Your task to perform on an android device: check the backup settings in the google photos Image 0: 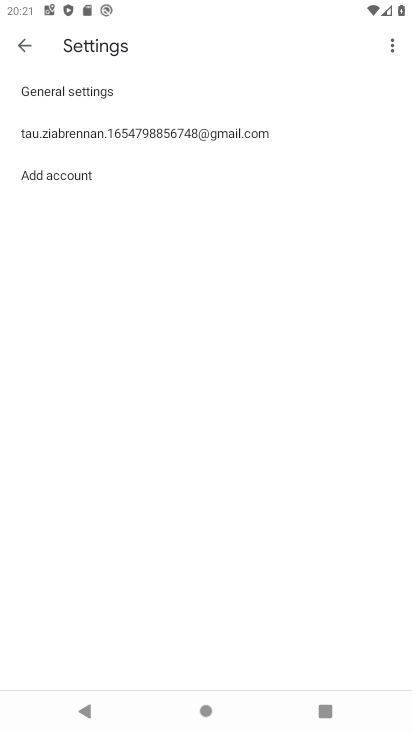
Step 0: drag from (169, 555) to (233, 178)
Your task to perform on an android device: check the backup settings in the google photos Image 1: 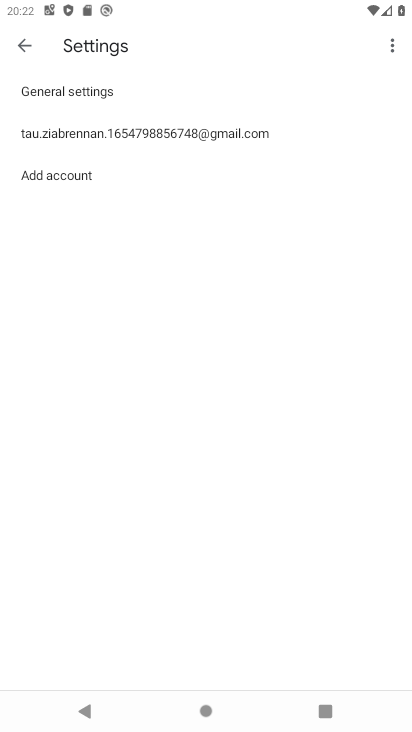
Step 1: press home button
Your task to perform on an android device: check the backup settings in the google photos Image 2: 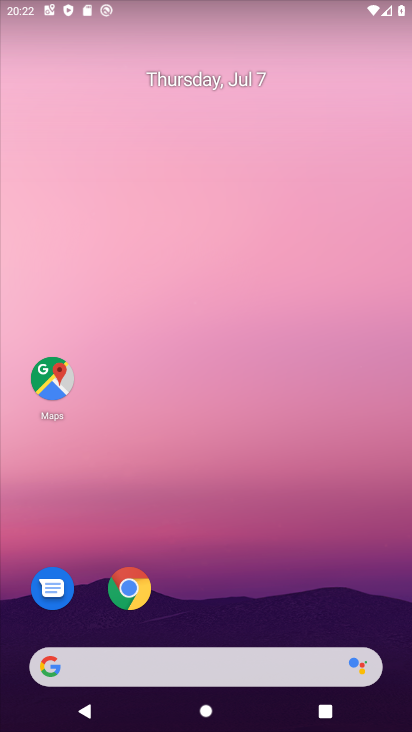
Step 2: drag from (213, 522) to (241, 227)
Your task to perform on an android device: check the backup settings in the google photos Image 3: 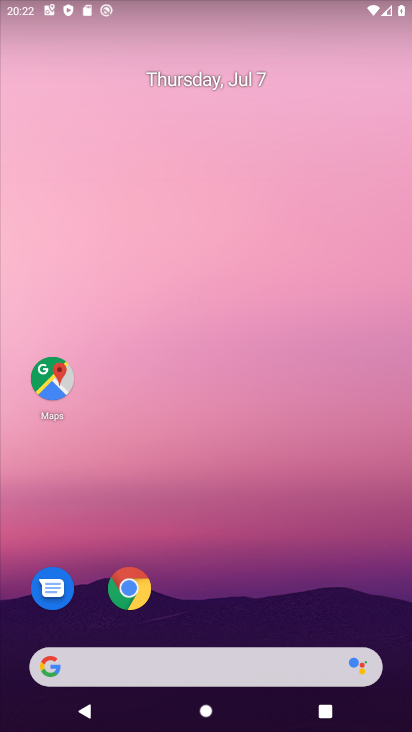
Step 3: drag from (265, 457) to (265, 110)
Your task to perform on an android device: check the backup settings in the google photos Image 4: 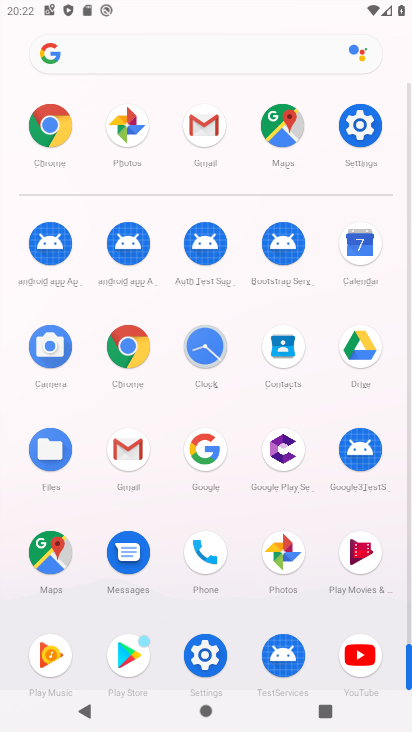
Step 4: drag from (265, 499) to (255, 179)
Your task to perform on an android device: check the backup settings in the google photos Image 5: 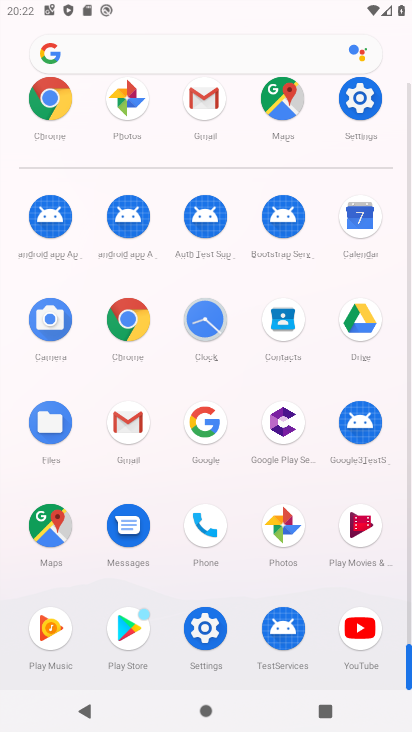
Step 5: click (279, 518)
Your task to perform on an android device: check the backup settings in the google photos Image 6: 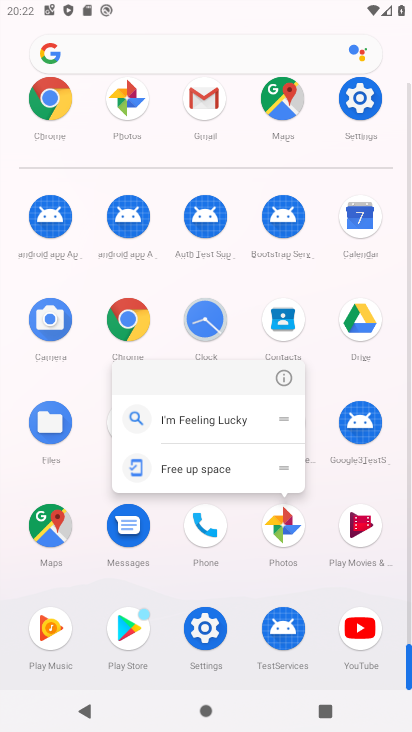
Step 6: click (285, 380)
Your task to perform on an android device: check the backup settings in the google photos Image 7: 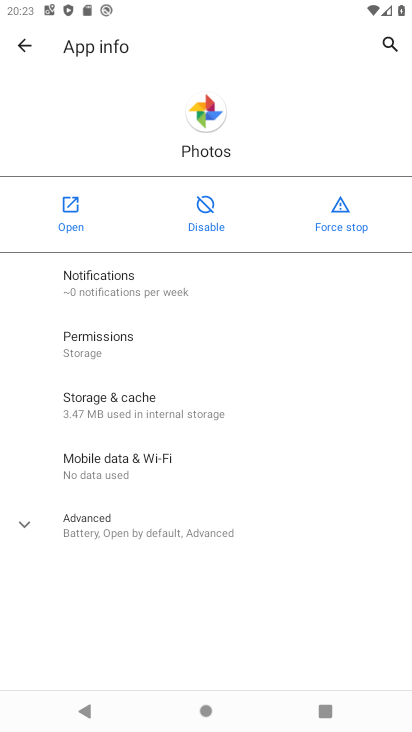
Step 7: click (66, 215)
Your task to perform on an android device: check the backup settings in the google photos Image 8: 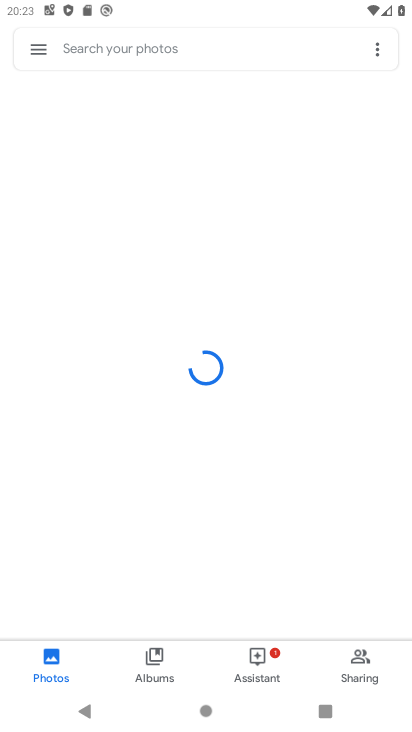
Step 8: drag from (233, 601) to (229, 290)
Your task to perform on an android device: check the backup settings in the google photos Image 9: 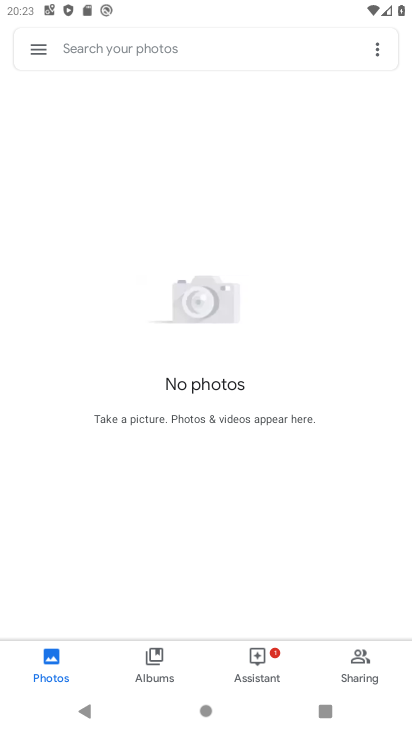
Step 9: click (43, 42)
Your task to perform on an android device: check the backup settings in the google photos Image 10: 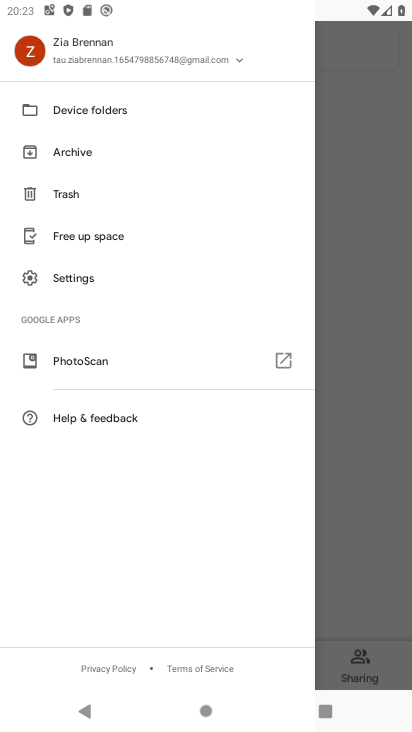
Step 10: click (68, 268)
Your task to perform on an android device: check the backup settings in the google photos Image 11: 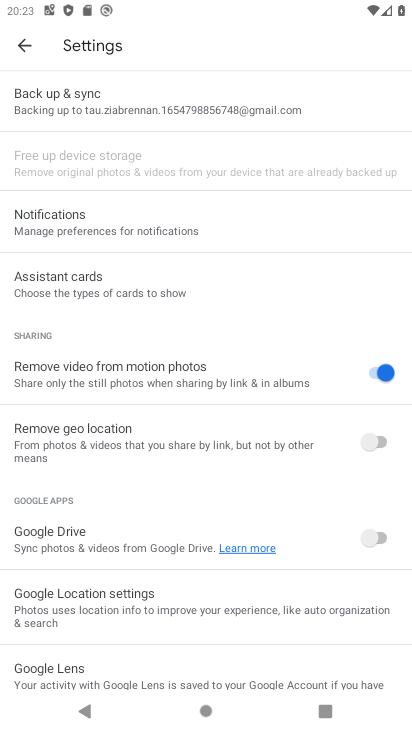
Step 11: drag from (192, 408) to (219, 166)
Your task to perform on an android device: check the backup settings in the google photos Image 12: 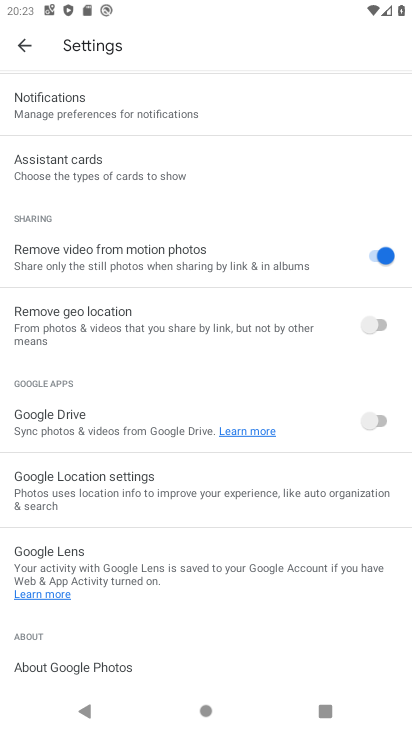
Step 12: drag from (116, 555) to (158, 182)
Your task to perform on an android device: check the backup settings in the google photos Image 13: 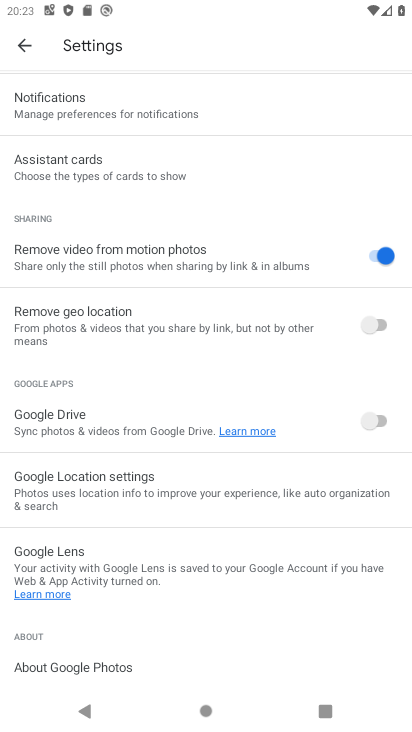
Step 13: drag from (210, 160) to (260, 518)
Your task to perform on an android device: check the backup settings in the google photos Image 14: 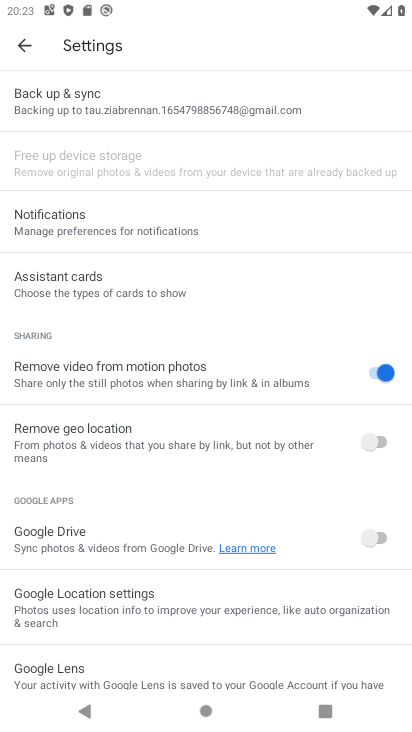
Step 14: click (119, 109)
Your task to perform on an android device: check the backup settings in the google photos Image 15: 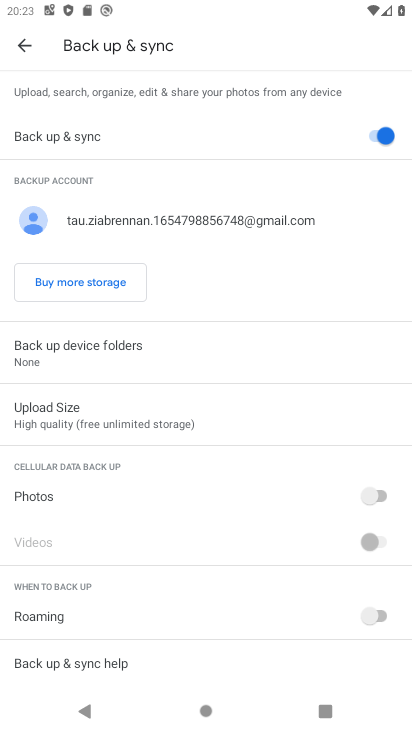
Step 15: task complete